Your task to perform on an android device: change keyboard looks Image 0: 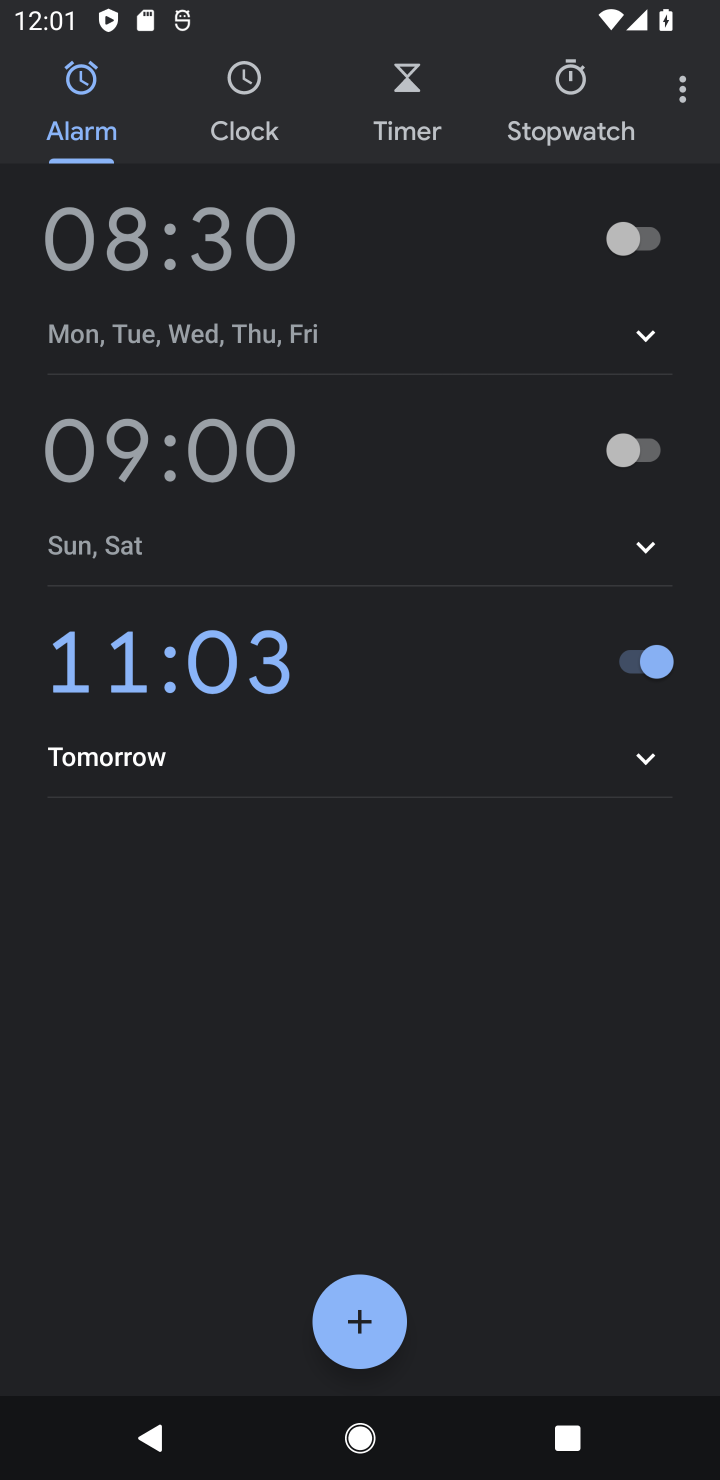
Step 0: press home button
Your task to perform on an android device: change keyboard looks Image 1: 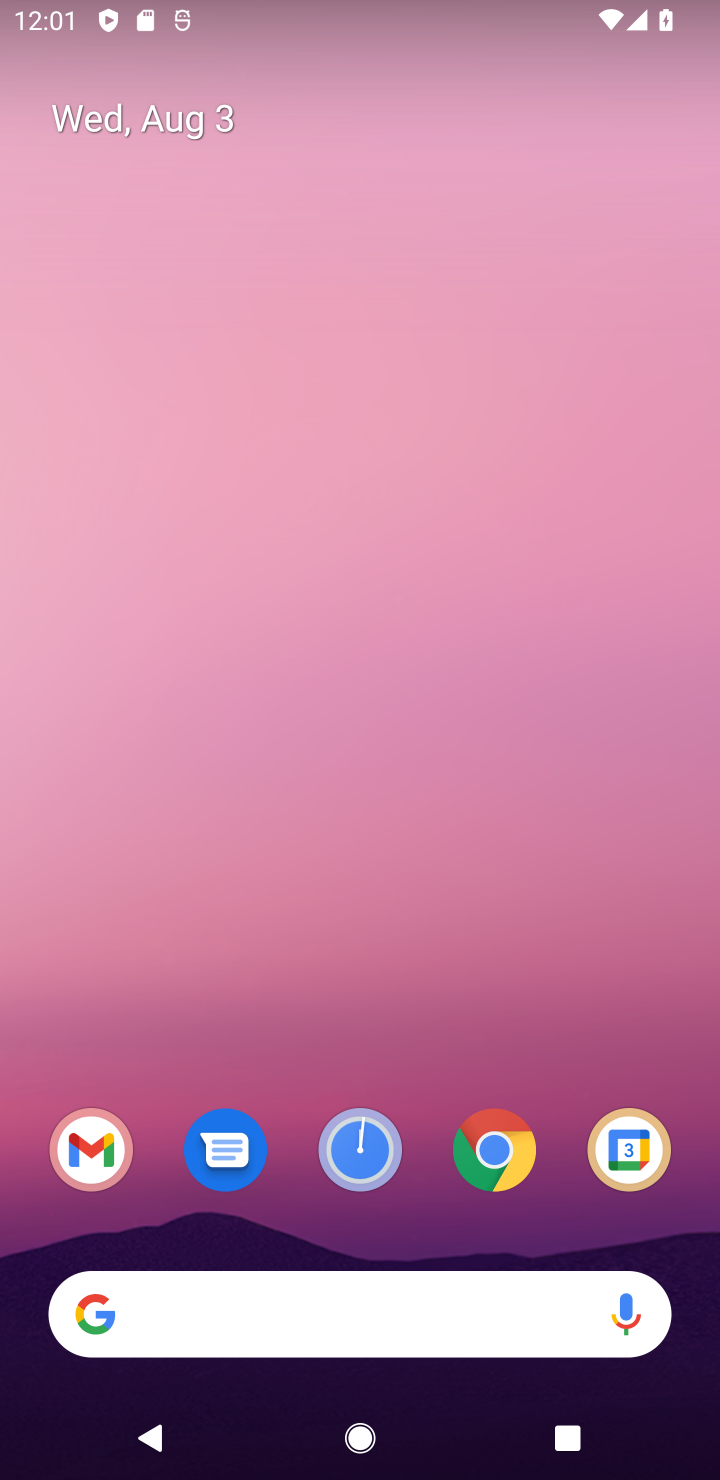
Step 1: drag from (545, 1055) to (574, 369)
Your task to perform on an android device: change keyboard looks Image 2: 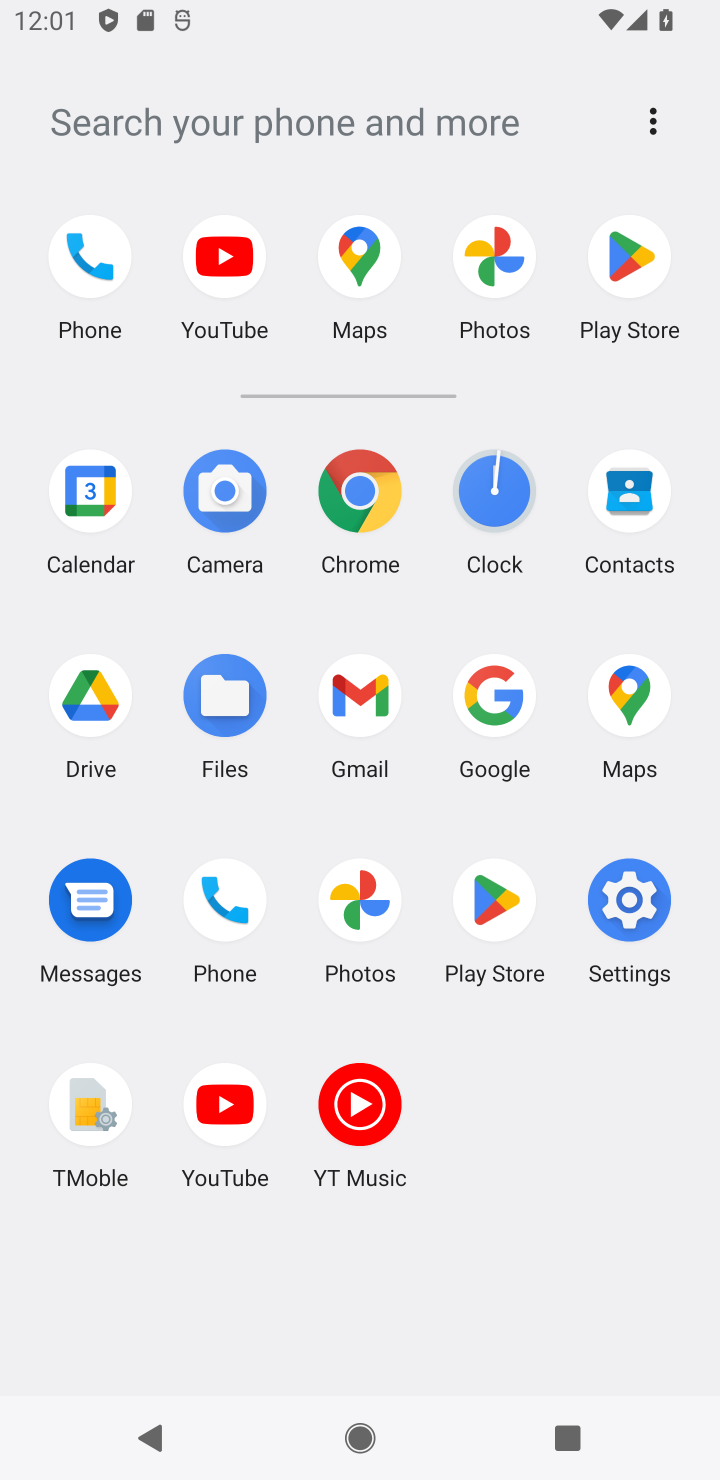
Step 2: click (619, 905)
Your task to perform on an android device: change keyboard looks Image 3: 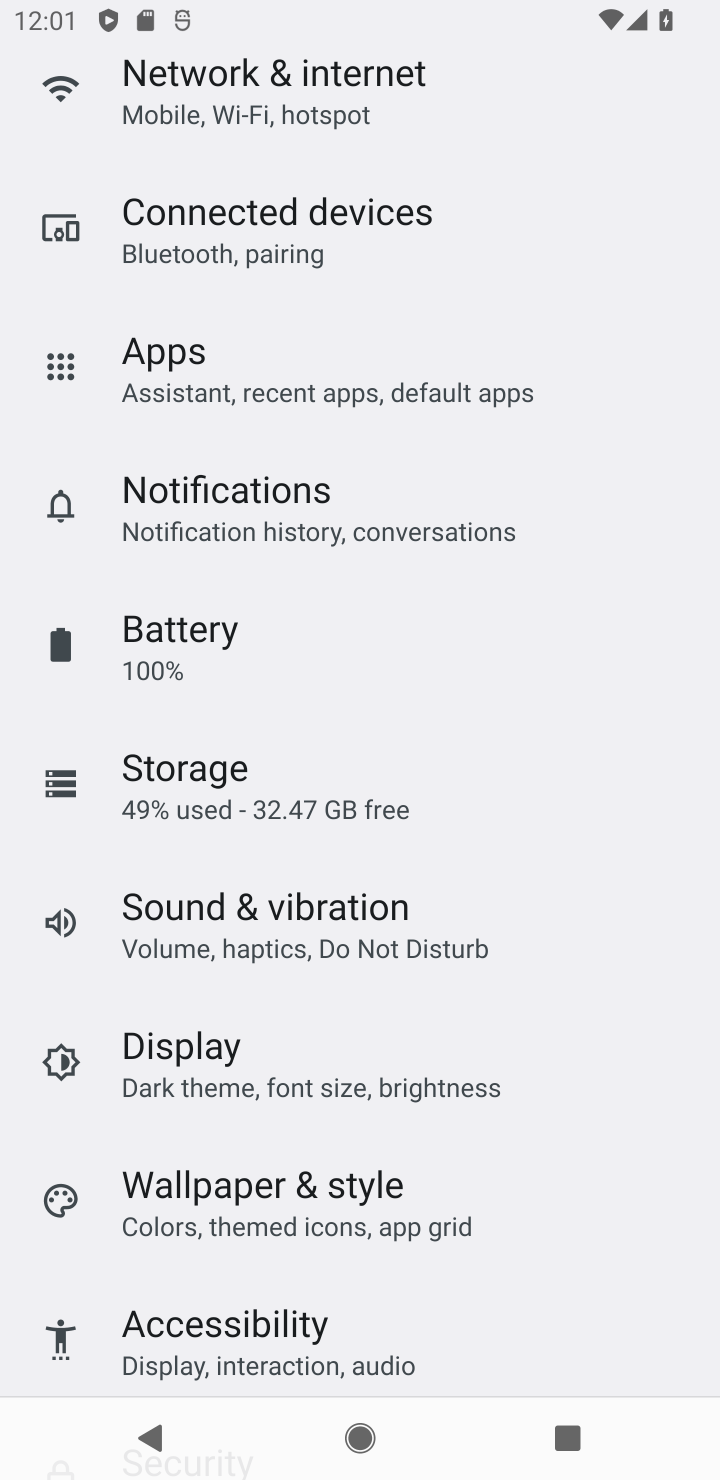
Step 3: drag from (568, 1239) to (603, 948)
Your task to perform on an android device: change keyboard looks Image 4: 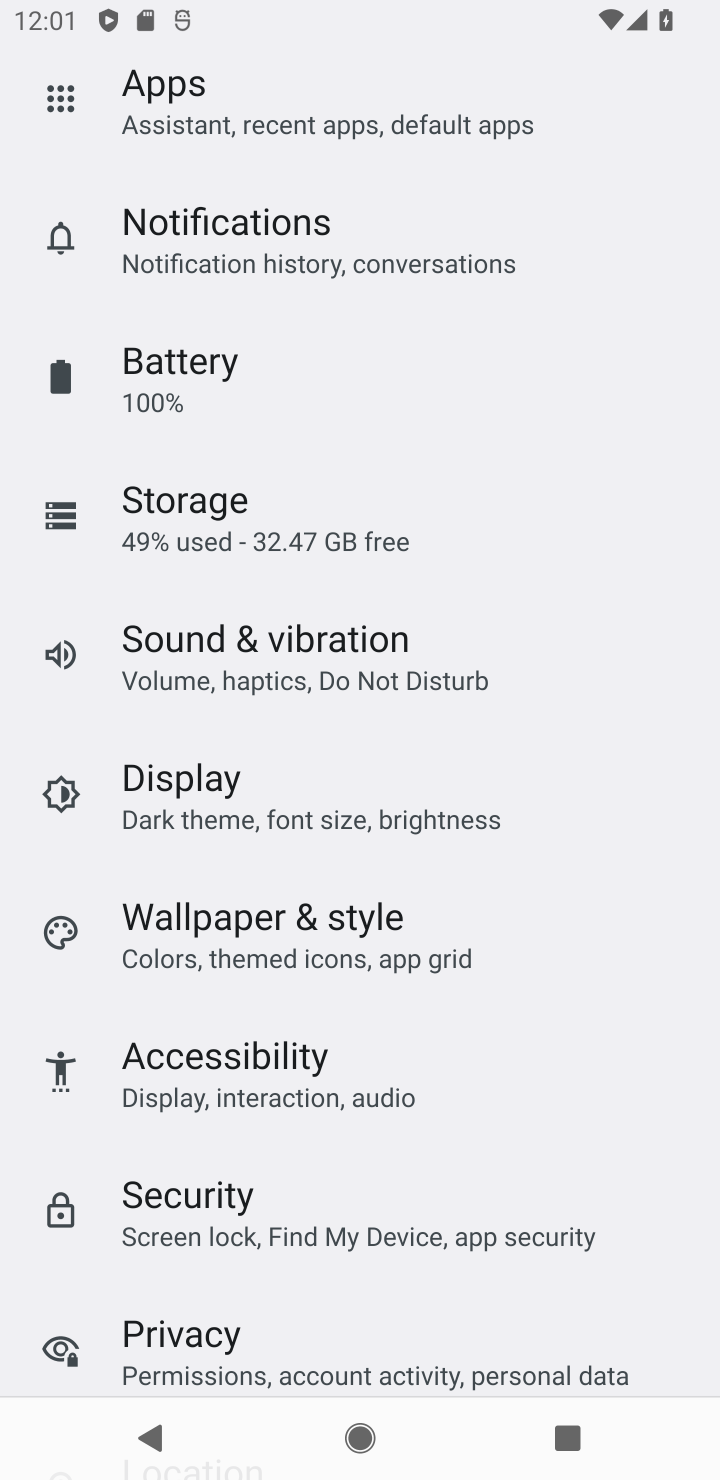
Step 4: drag from (611, 1234) to (608, 865)
Your task to perform on an android device: change keyboard looks Image 5: 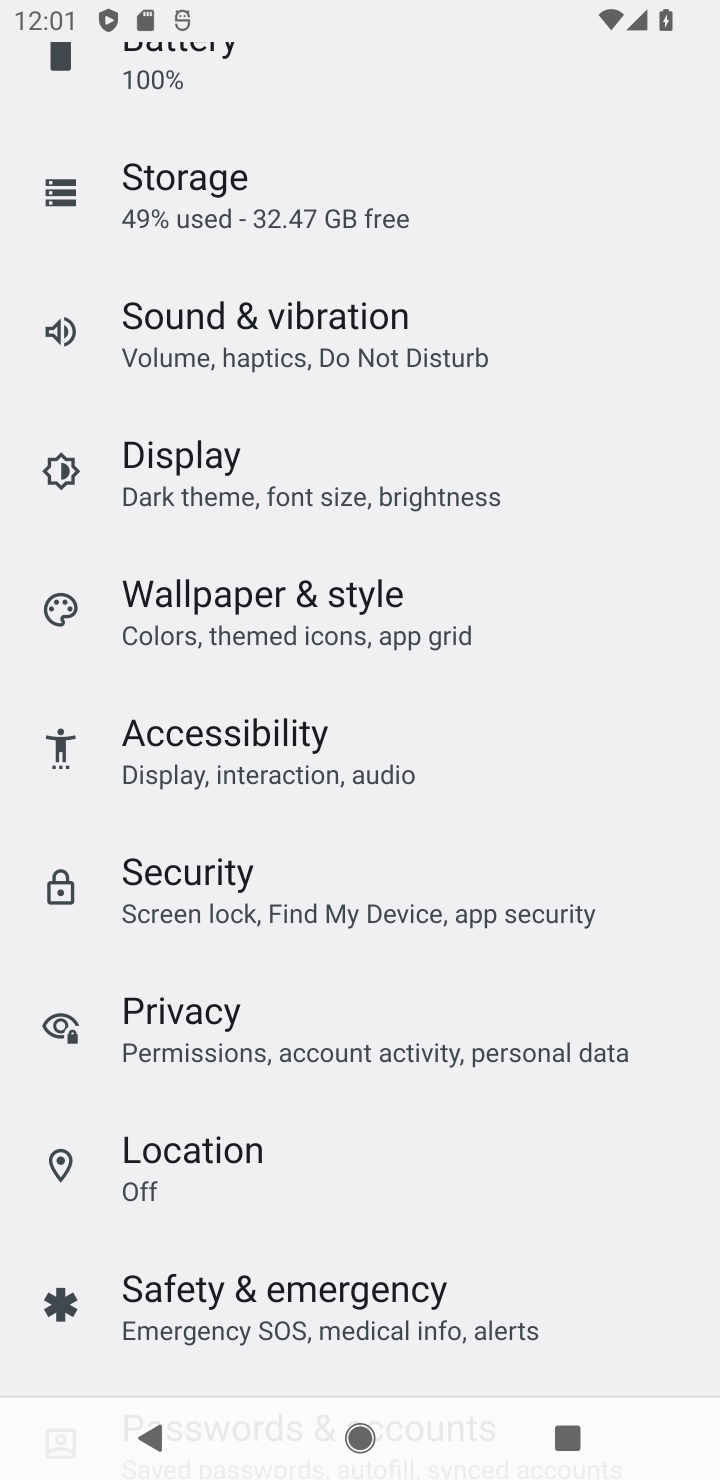
Step 5: drag from (605, 1234) to (607, 855)
Your task to perform on an android device: change keyboard looks Image 6: 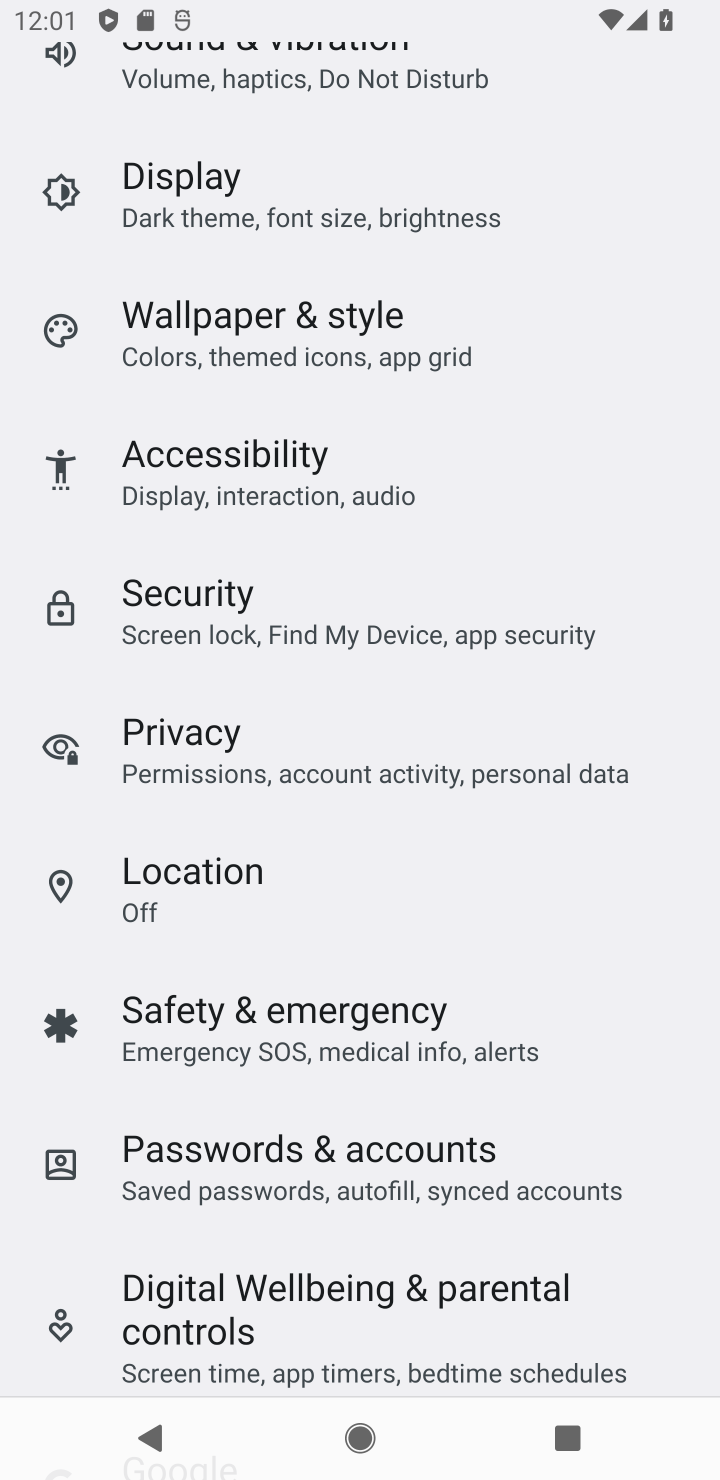
Step 6: drag from (627, 1270) to (616, 963)
Your task to perform on an android device: change keyboard looks Image 7: 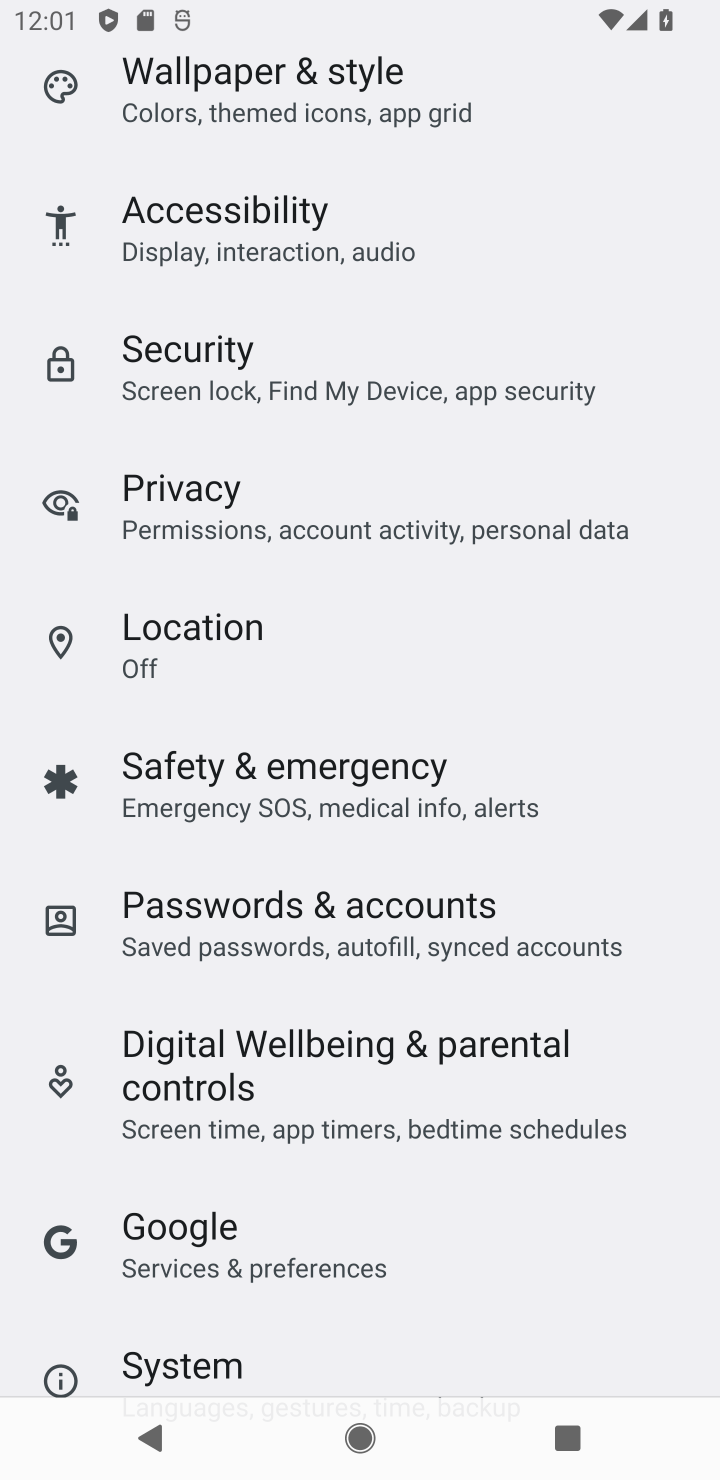
Step 7: drag from (524, 1278) to (522, 944)
Your task to perform on an android device: change keyboard looks Image 8: 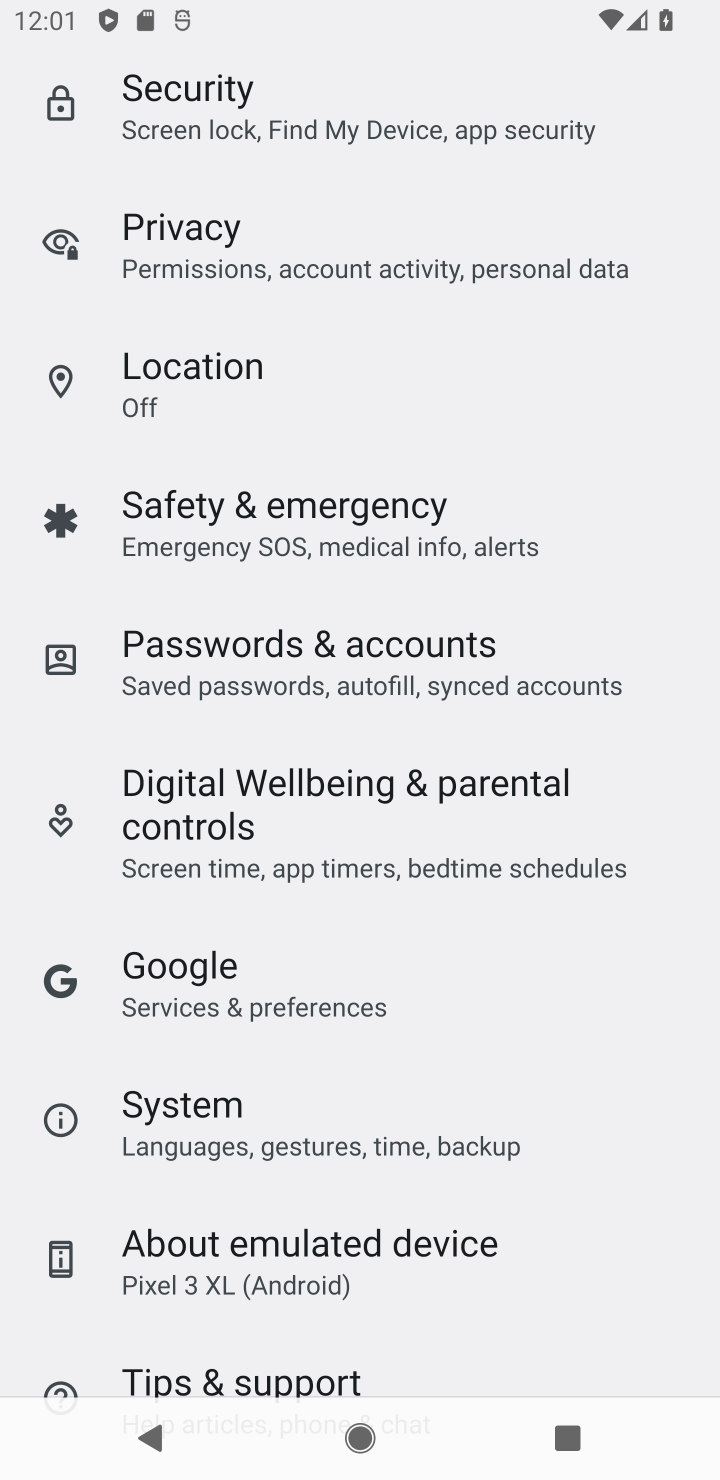
Step 8: click (518, 1147)
Your task to perform on an android device: change keyboard looks Image 9: 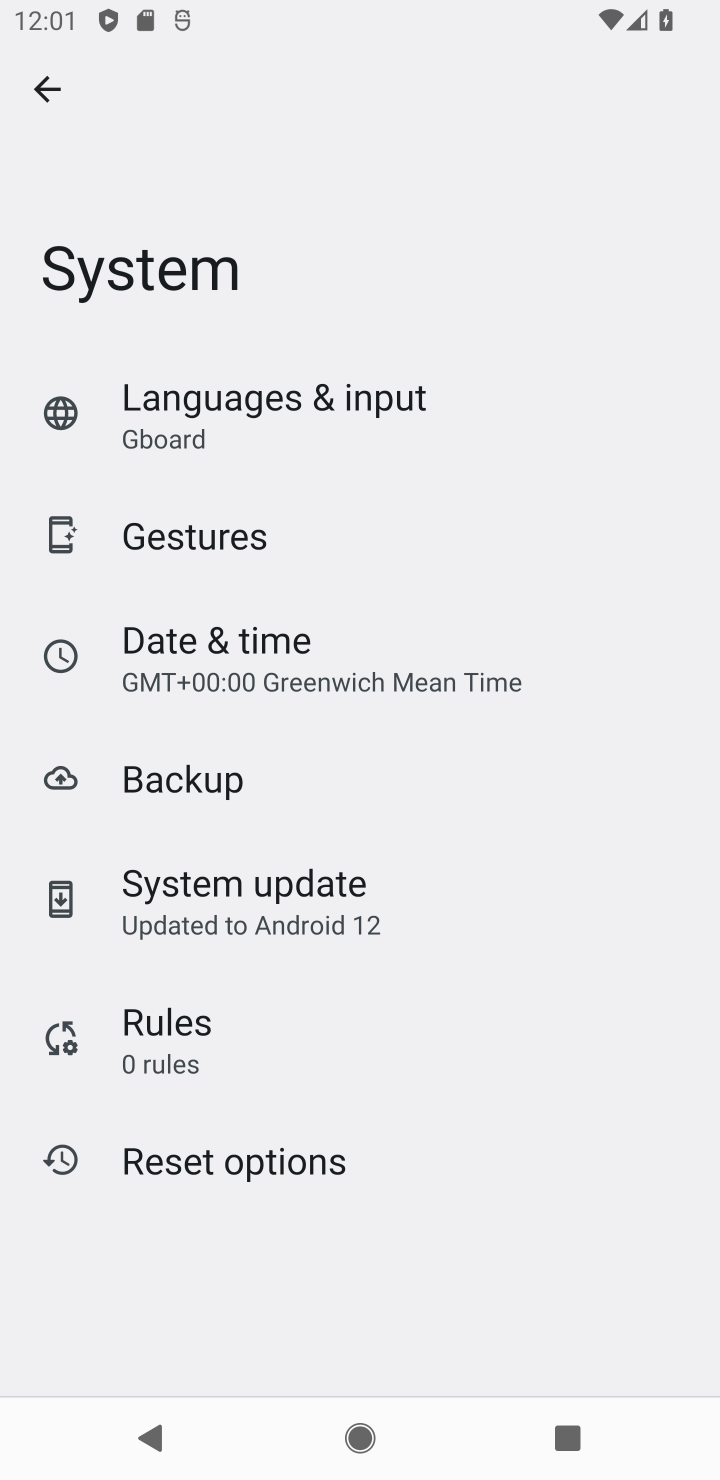
Step 9: click (277, 417)
Your task to perform on an android device: change keyboard looks Image 10: 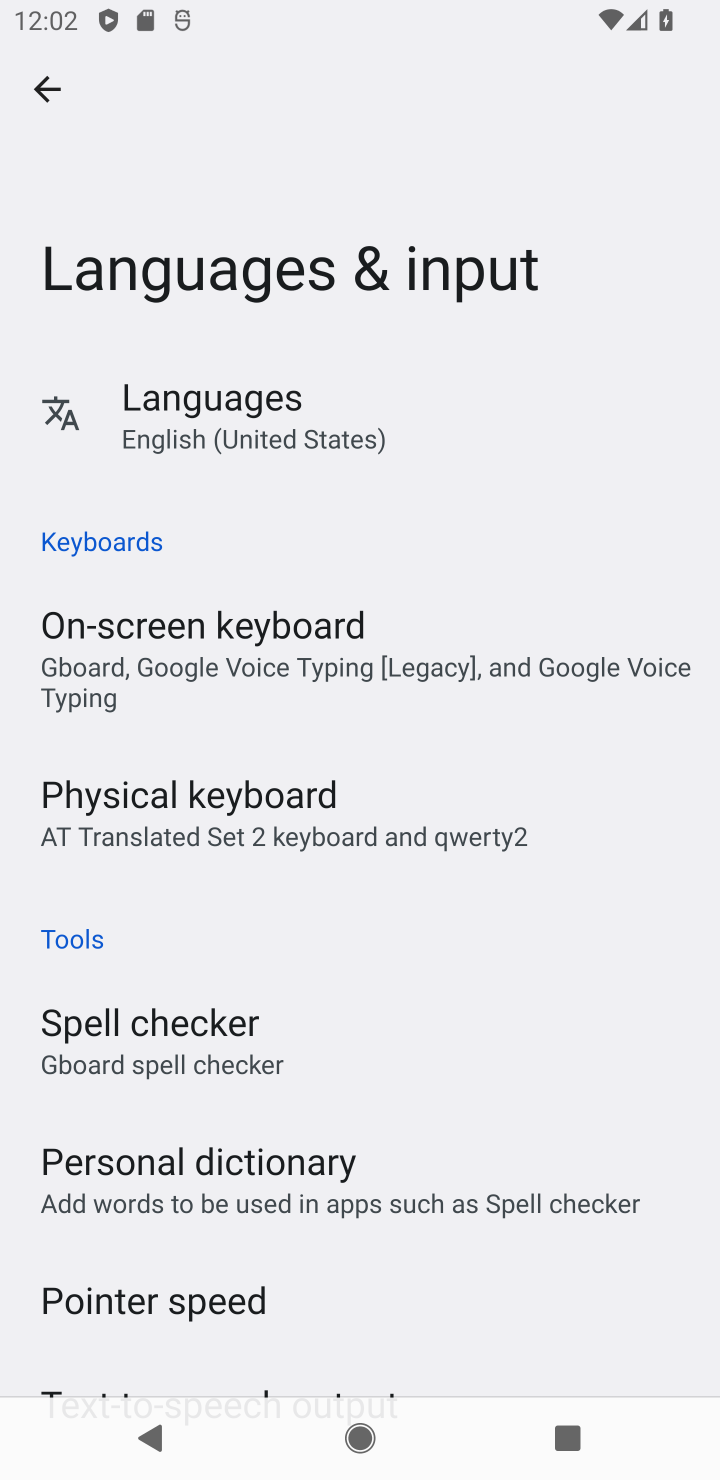
Step 10: drag from (402, 985) to (409, 697)
Your task to perform on an android device: change keyboard looks Image 11: 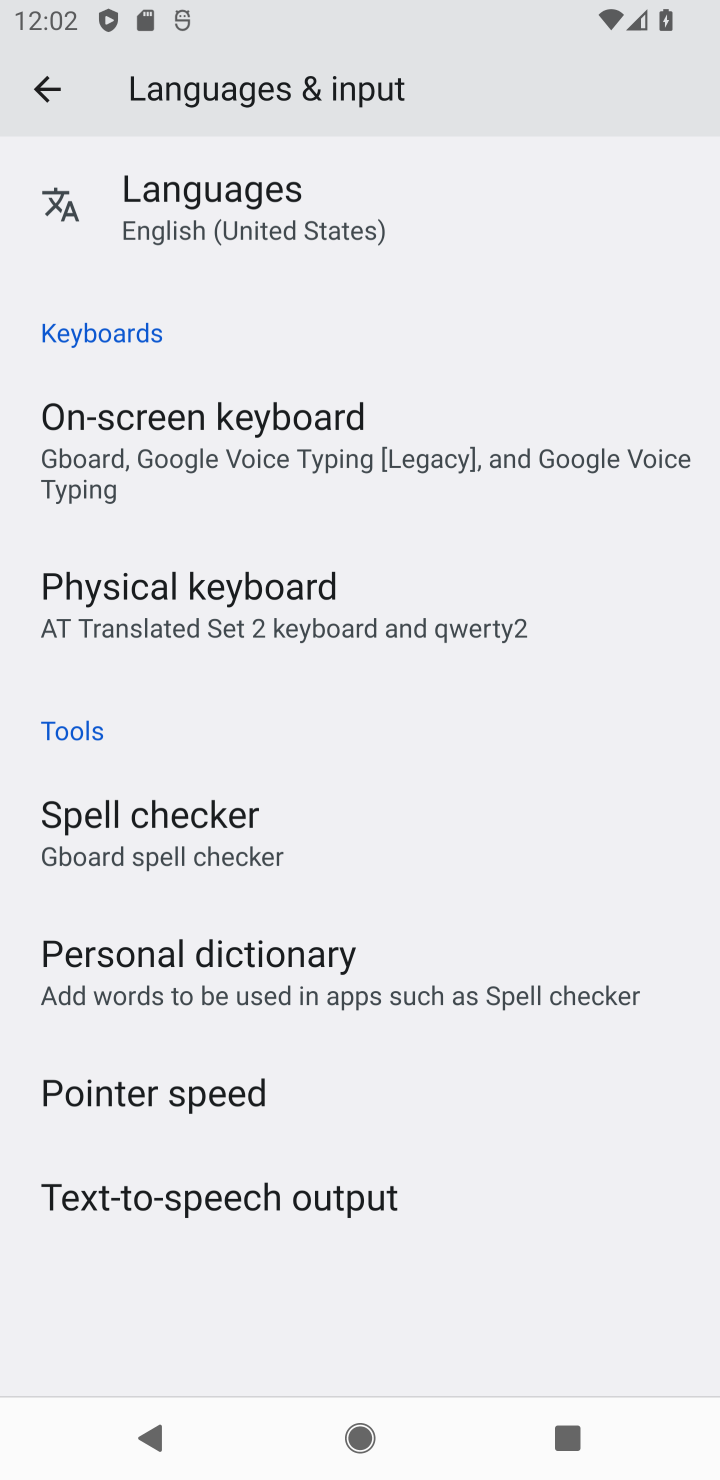
Step 11: click (372, 434)
Your task to perform on an android device: change keyboard looks Image 12: 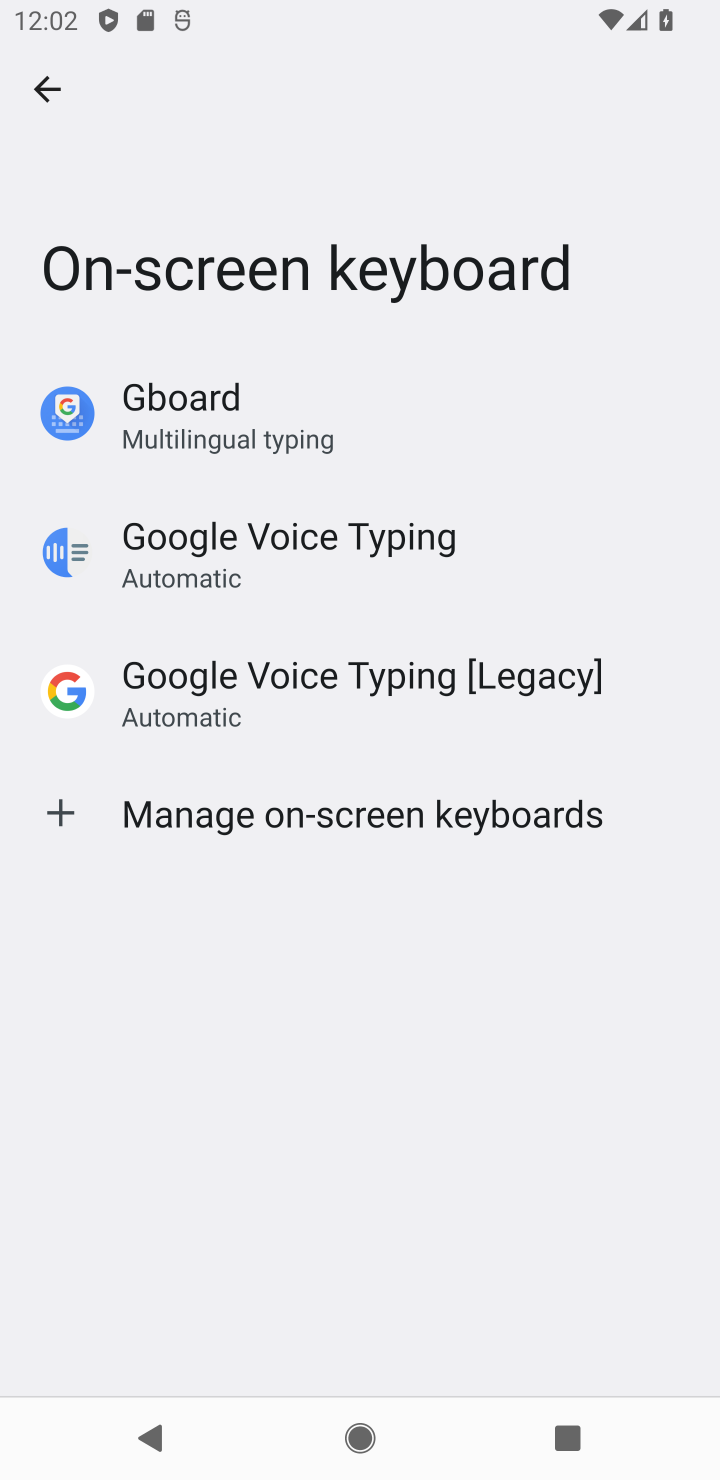
Step 12: click (175, 412)
Your task to perform on an android device: change keyboard looks Image 13: 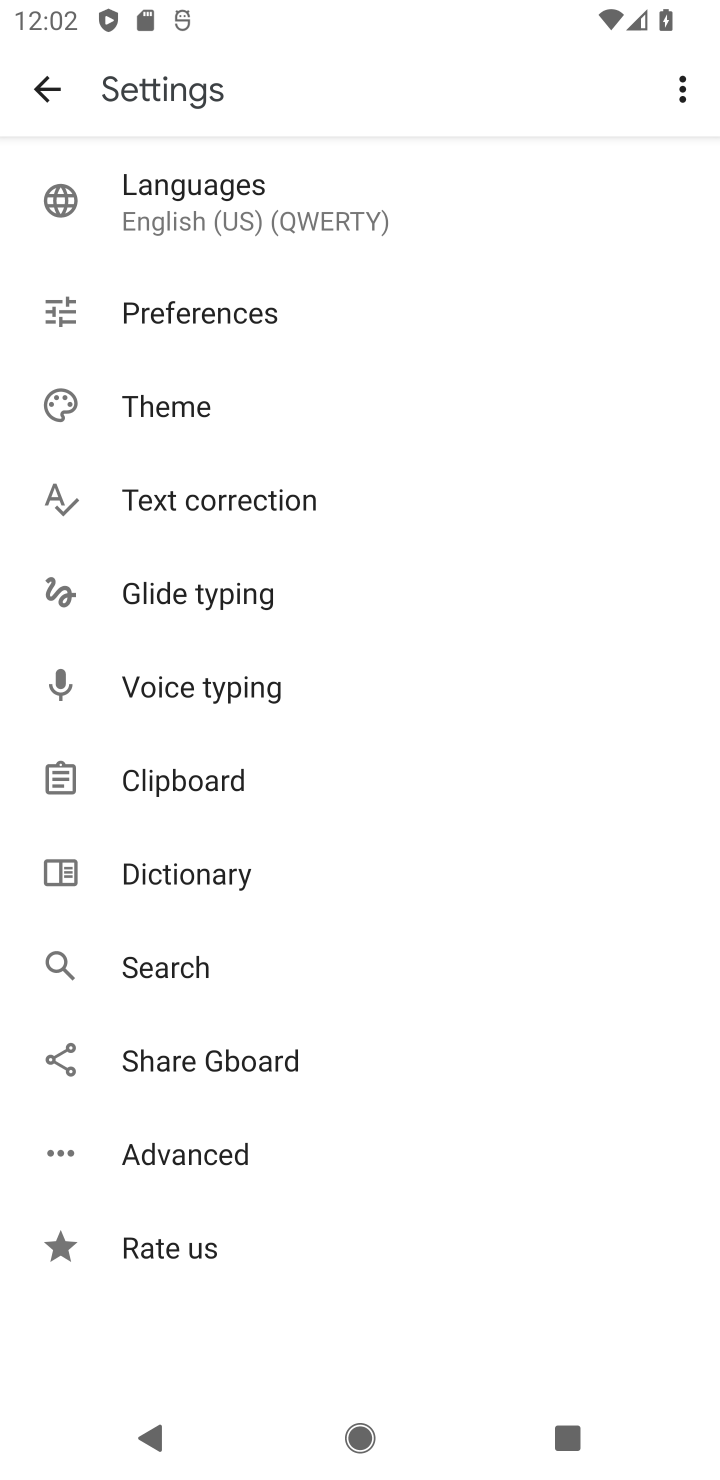
Step 13: click (175, 412)
Your task to perform on an android device: change keyboard looks Image 14: 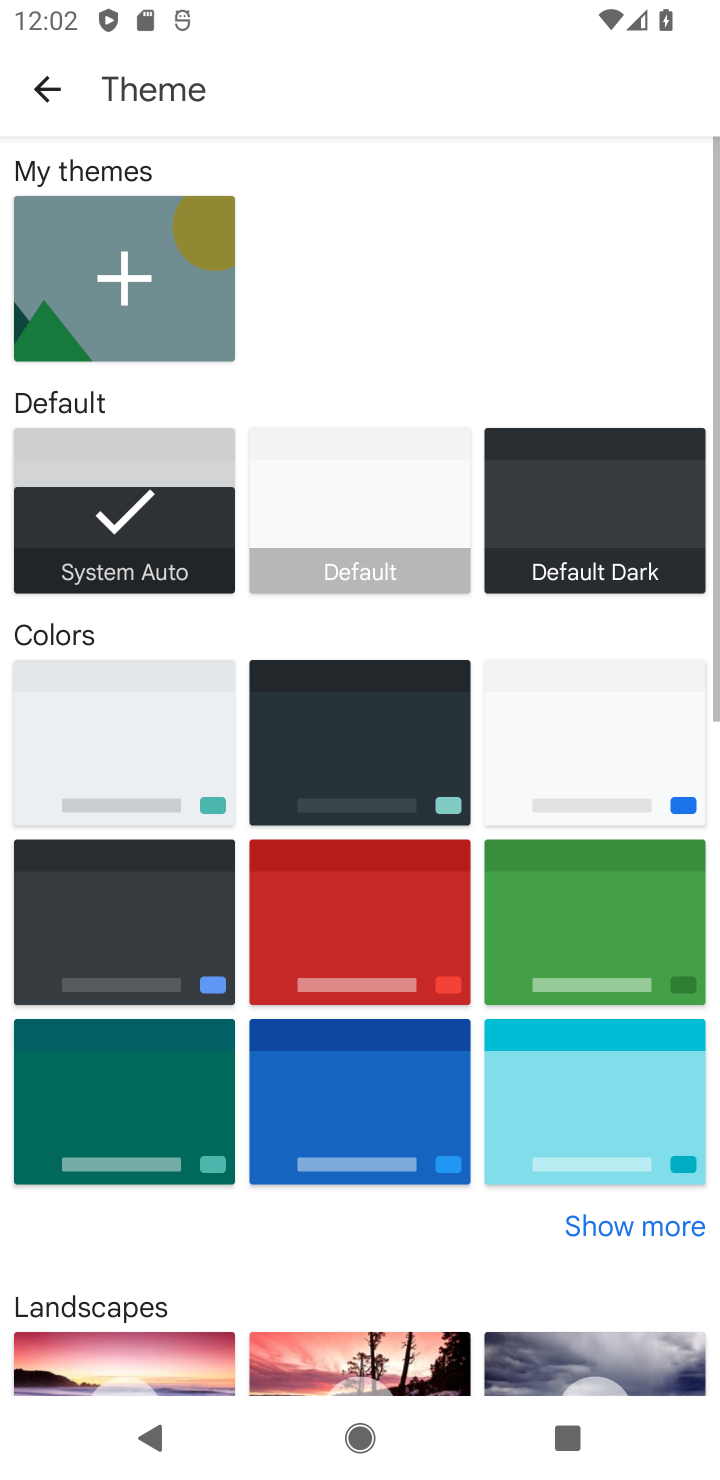
Step 14: click (360, 890)
Your task to perform on an android device: change keyboard looks Image 15: 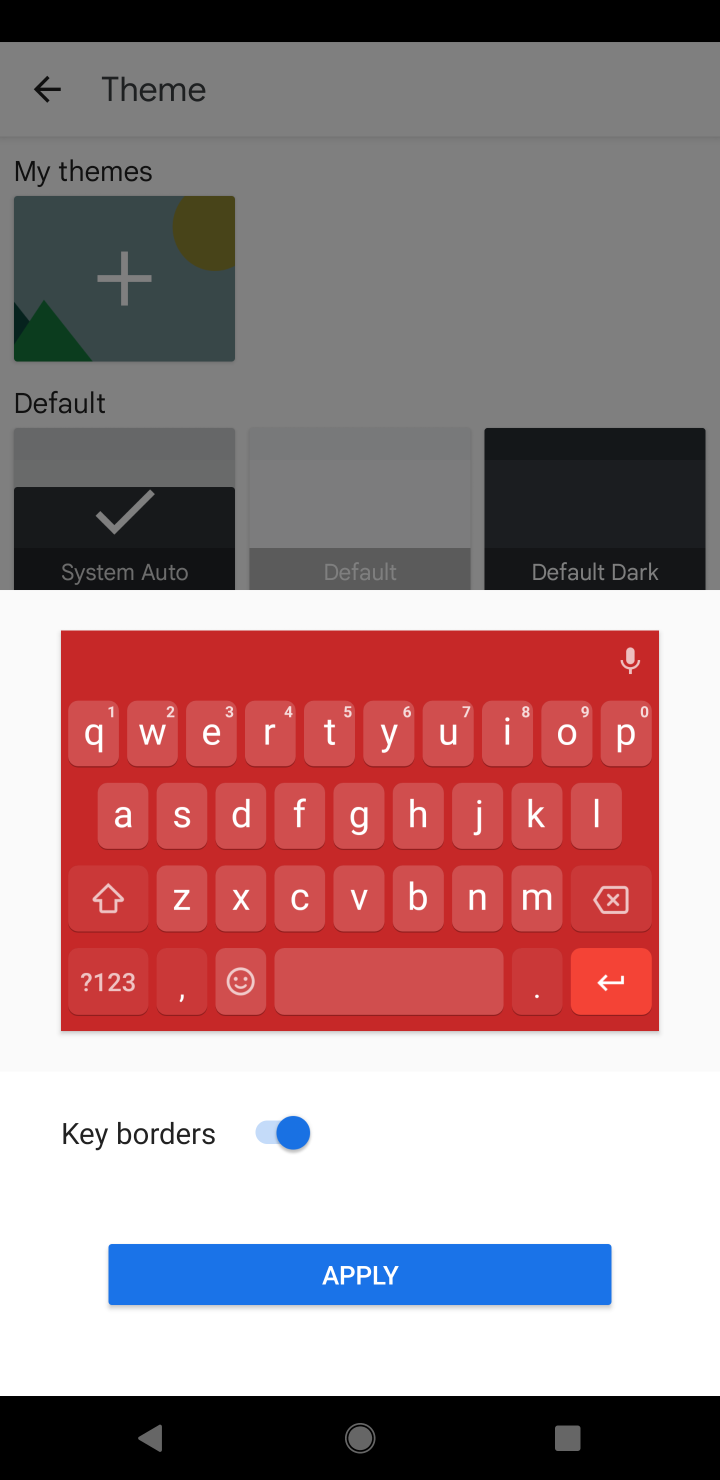
Step 15: click (423, 1269)
Your task to perform on an android device: change keyboard looks Image 16: 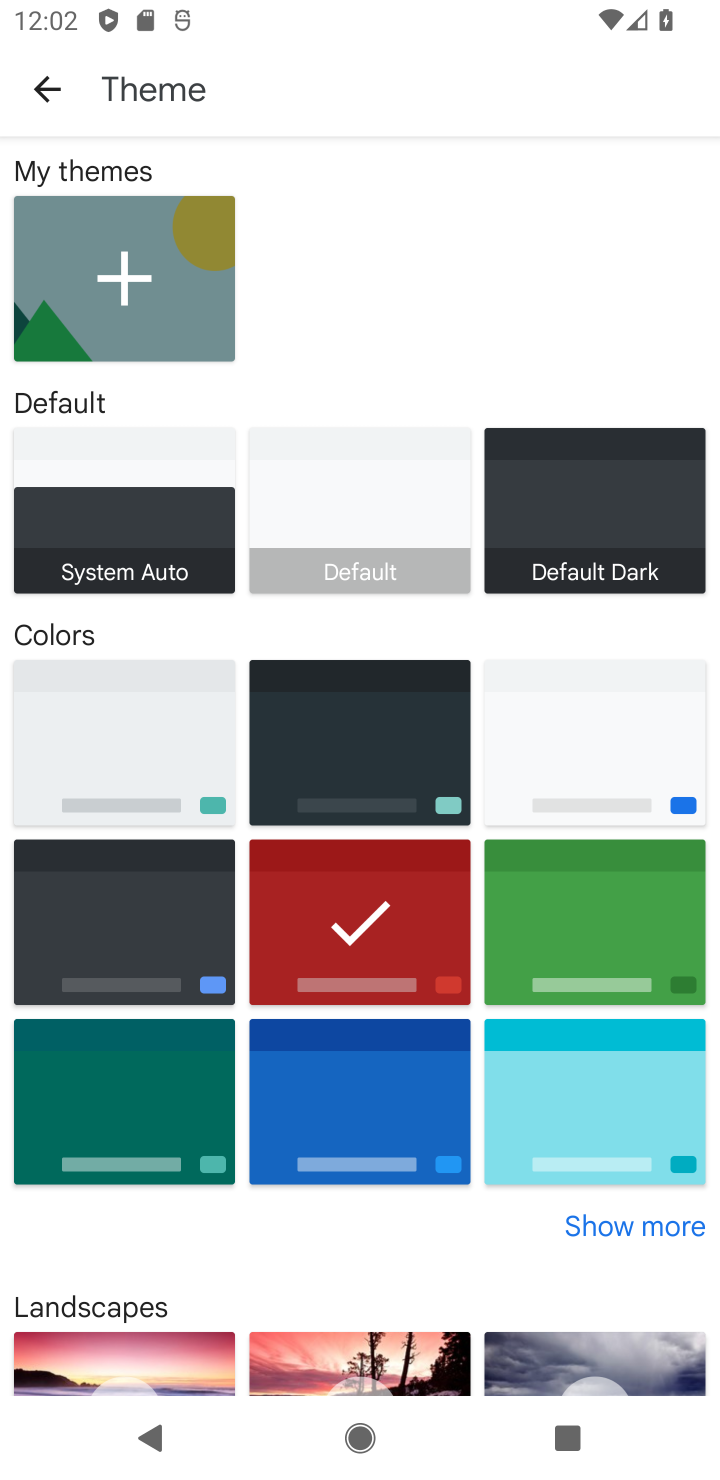
Step 16: task complete